Your task to perform on an android device: Open Wikipedia Image 0: 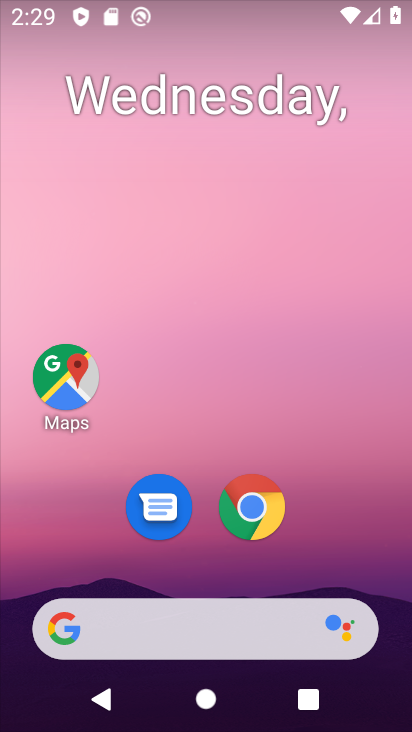
Step 0: click (254, 509)
Your task to perform on an android device: Open Wikipedia Image 1: 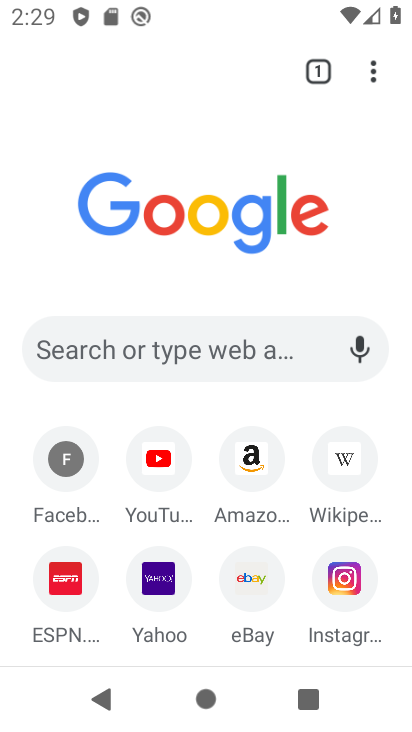
Step 1: click (350, 452)
Your task to perform on an android device: Open Wikipedia Image 2: 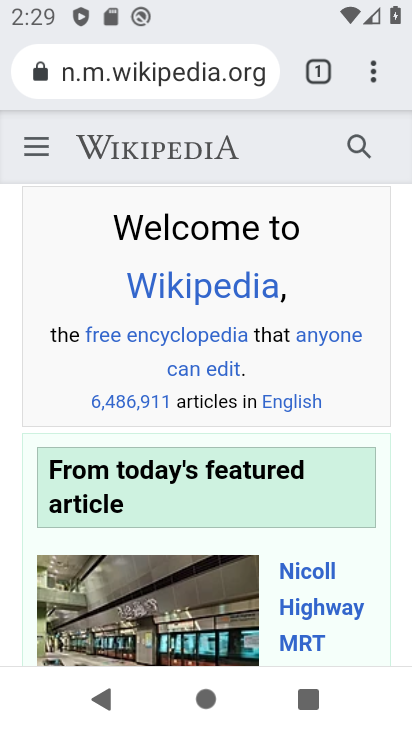
Step 2: task complete